Your task to perform on an android device: Turn on the flashlight Image 0: 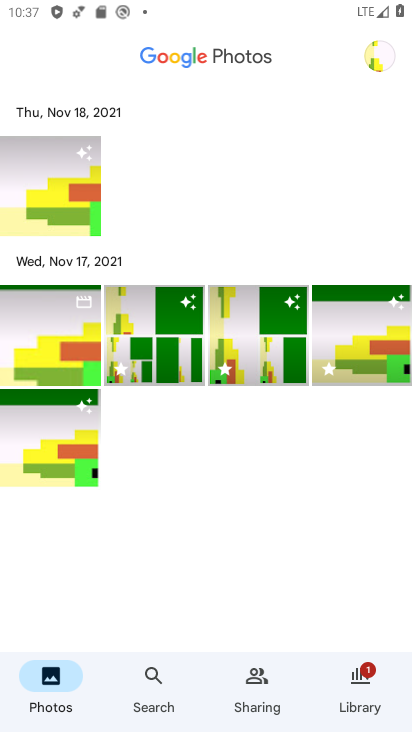
Step 0: press home button
Your task to perform on an android device: Turn on the flashlight Image 1: 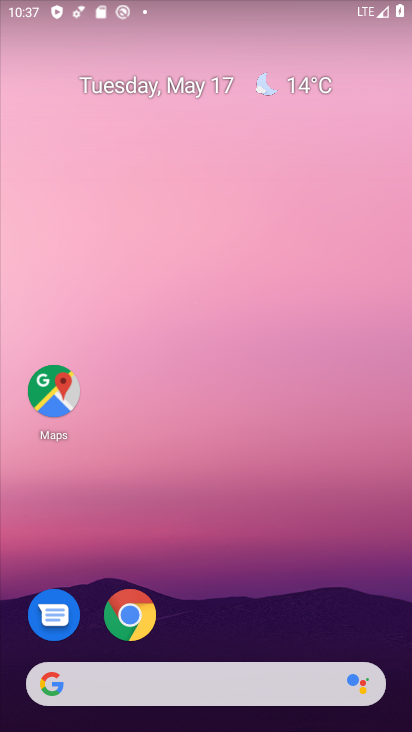
Step 1: task complete